Your task to perform on an android device: What's a good restaurant in Seattle? Image 0: 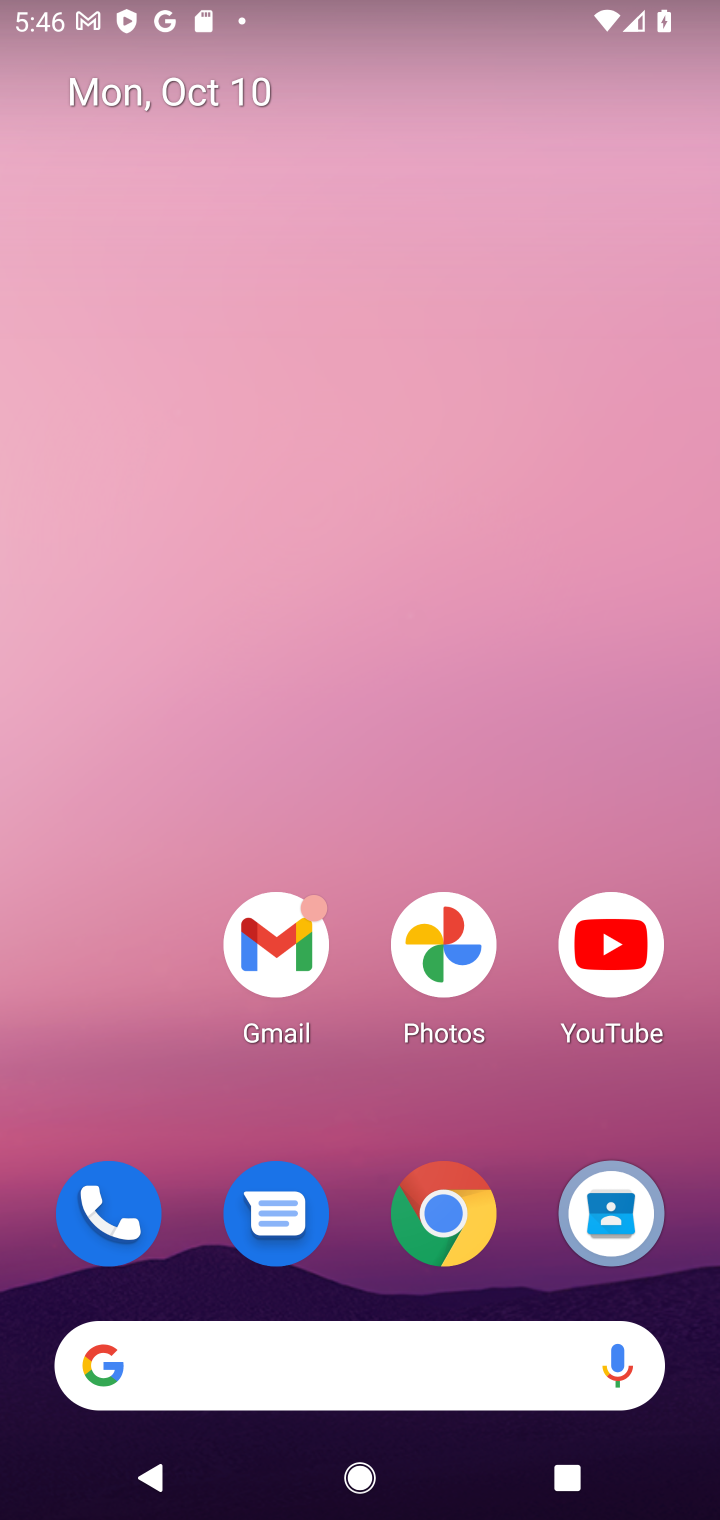
Step 0: click (279, 1365)
Your task to perform on an android device: What's a good restaurant in Seattle? Image 1: 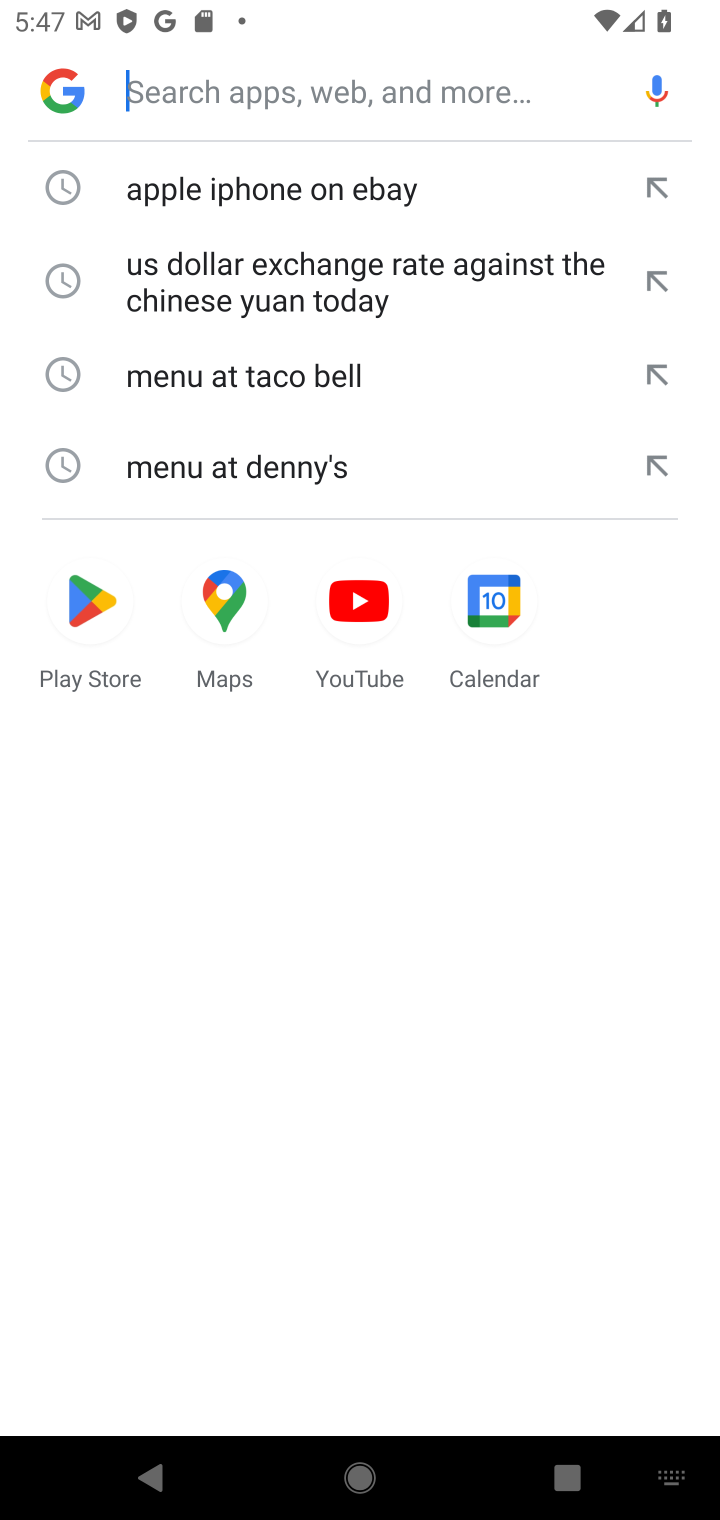
Step 1: type "good restaurant in Seattle"
Your task to perform on an android device: What's a good restaurant in Seattle? Image 2: 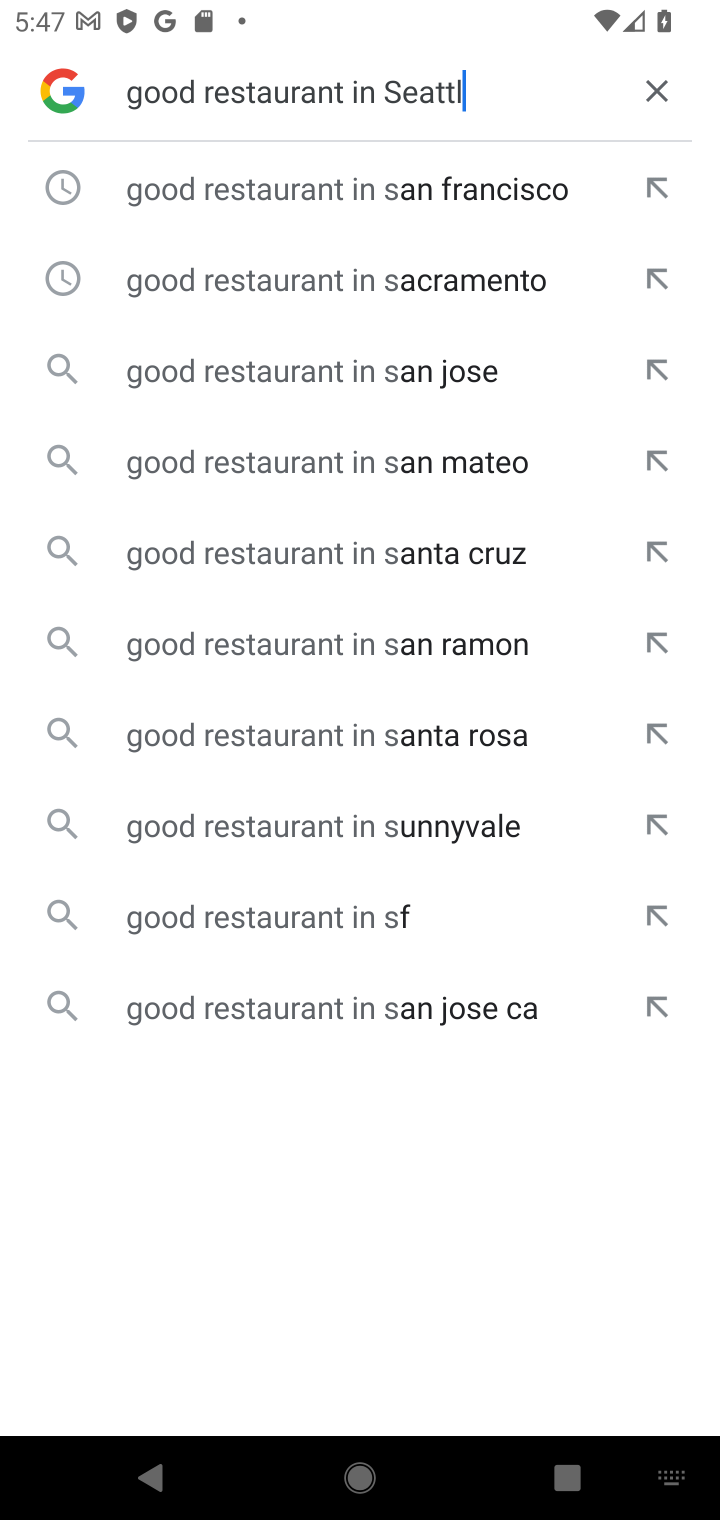
Step 2: type ""
Your task to perform on an android device: What's a good restaurant in Seattle? Image 3: 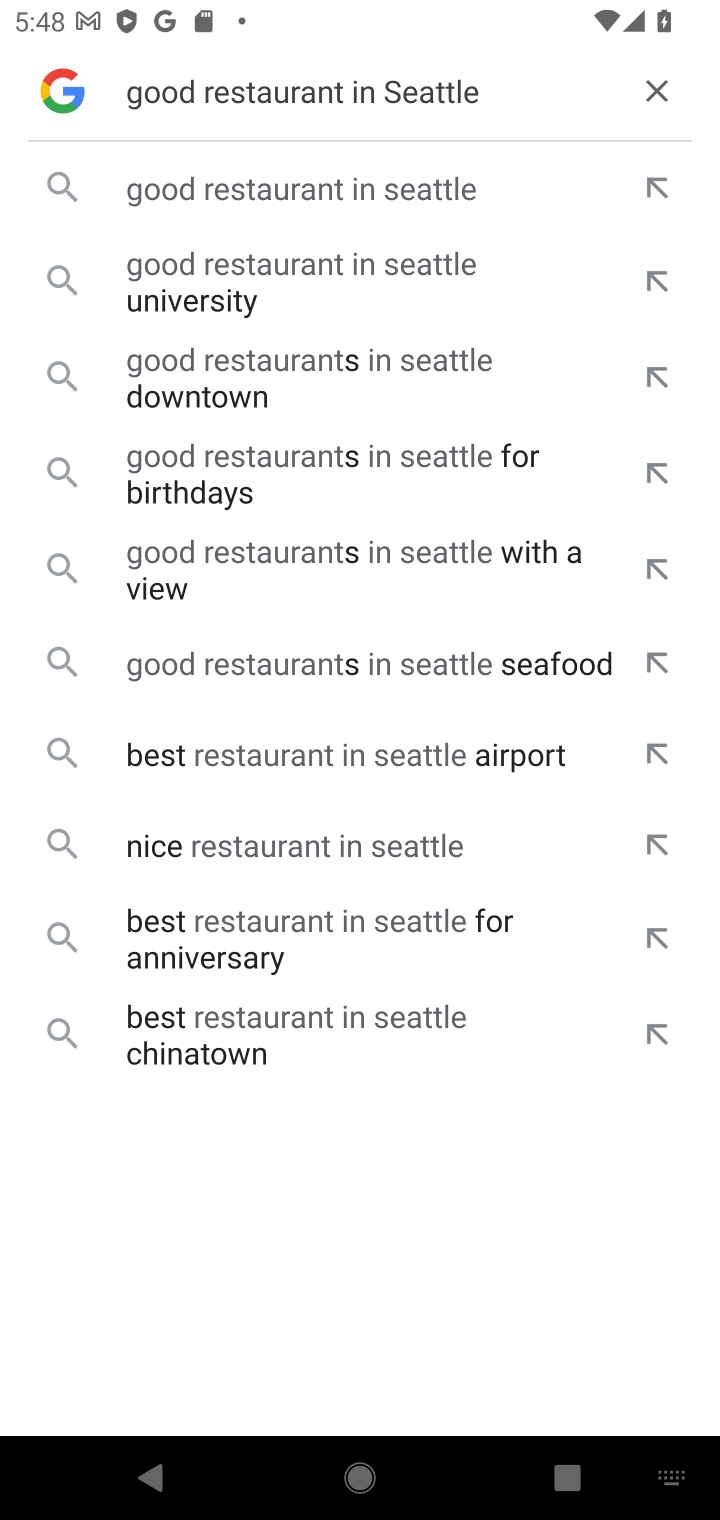
Step 3: click (338, 175)
Your task to perform on an android device: What's a good restaurant in Seattle? Image 4: 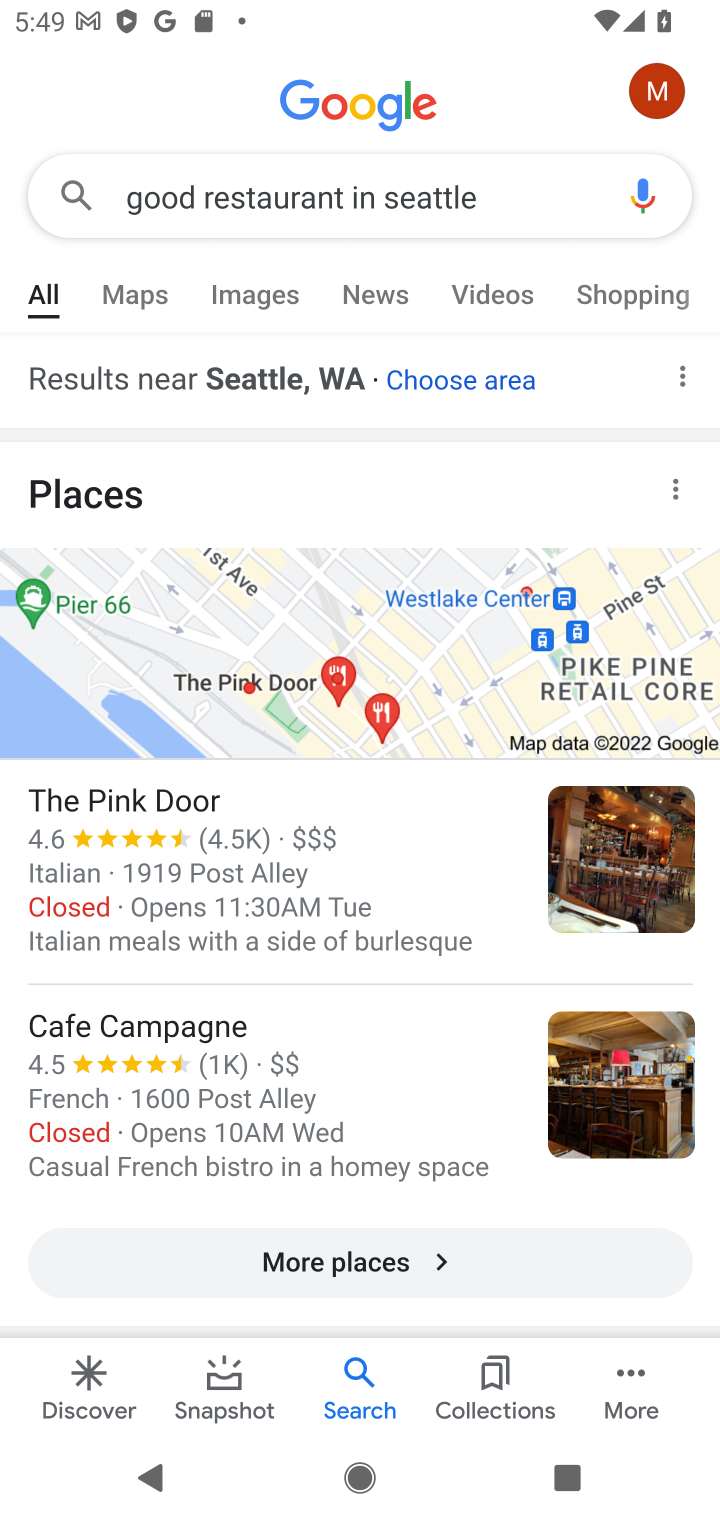
Step 4: task complete